Your task to perform on an android device: check storage Image 0: 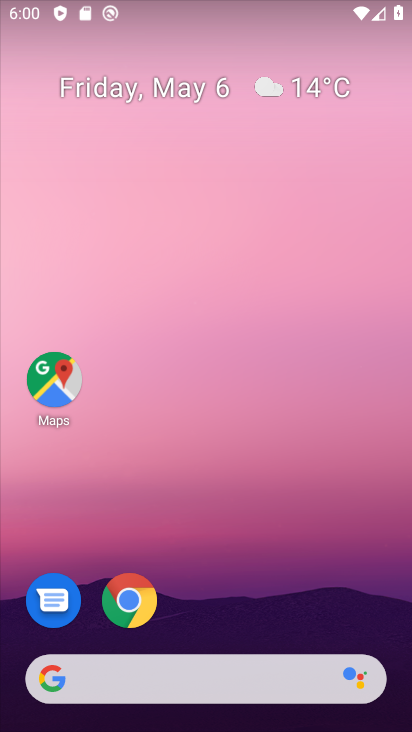
Step 0: drag from (285, 578) to (184, 7)
Your task to perform on an android device: check storage Image 1: 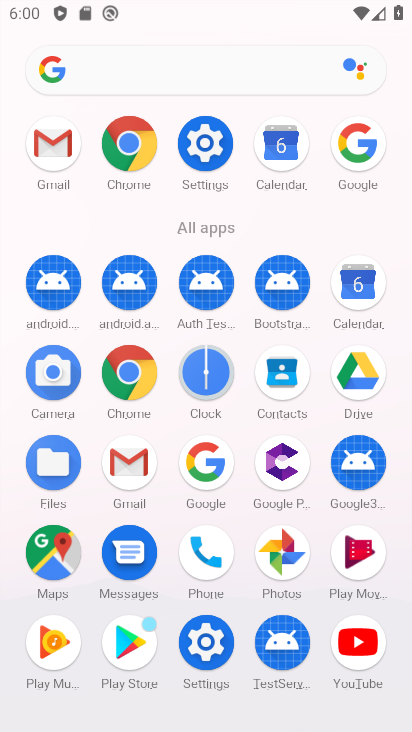
Step 1: click (205, 144)
Your task to perform on an android device: check storage Image 2: 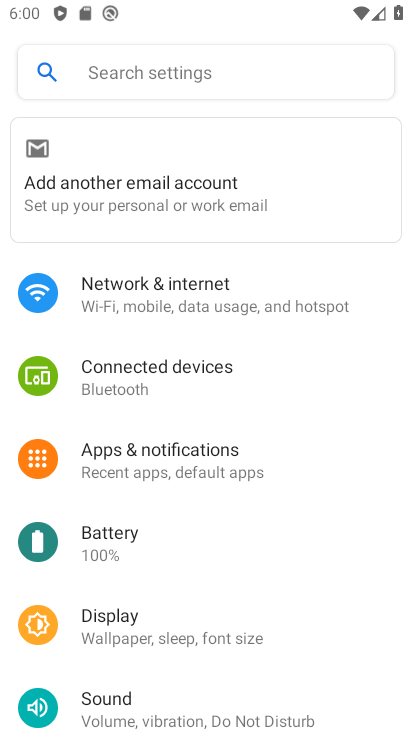
Step 2: drag from (172, 552) to (197, 445)
Your task to perform on an android device: check storage Image 3: 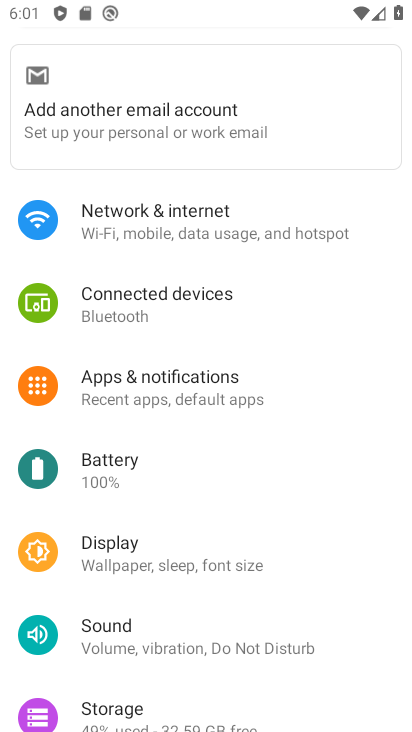
Step 3: drag from (160, 589) to (295, 380)
Your task to perform on an android device: check storage Image 4: 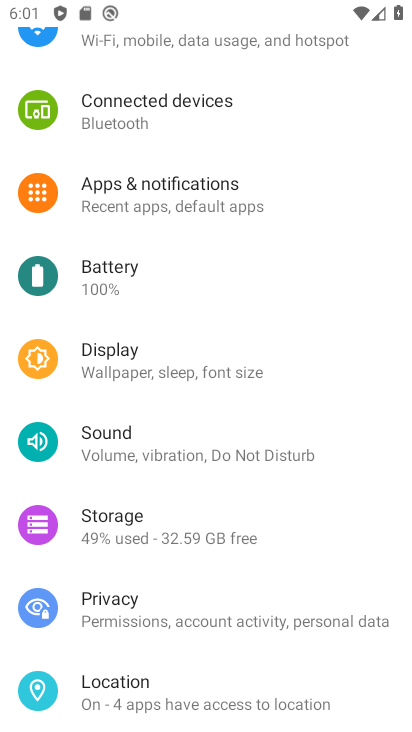
Step 4: click (106, 524)
Your task to perform on an android device: check storage Image 5: 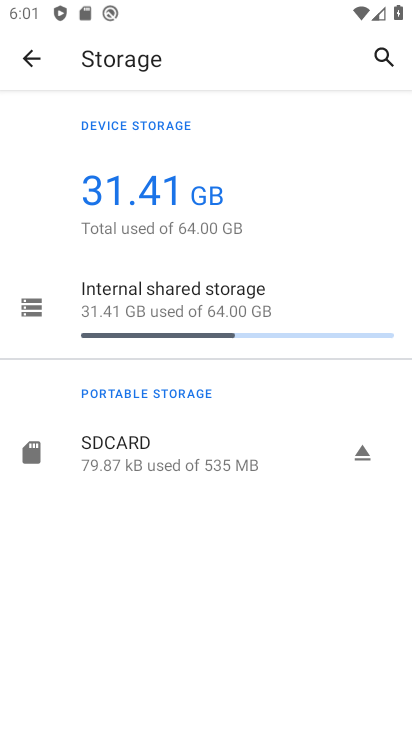
Step 5: task complete